Your task to perform on an android device: turn off priority inbox in the gmail app Image 0: 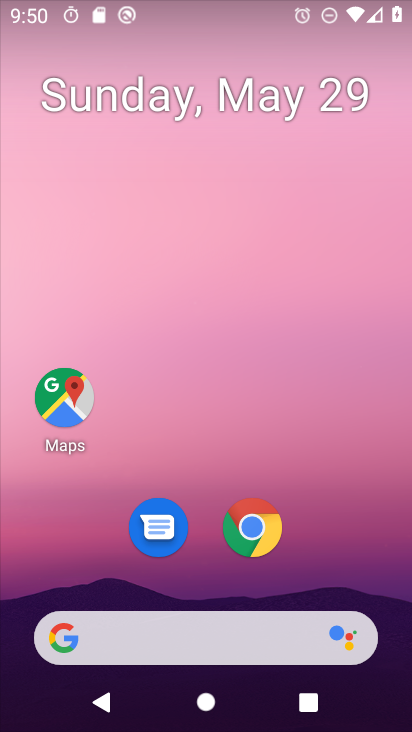
Step 0: drag from (391, 631) to (335, 50)
Your task to perform on an android device: turn off priority inbox in the gmail app Image 1: 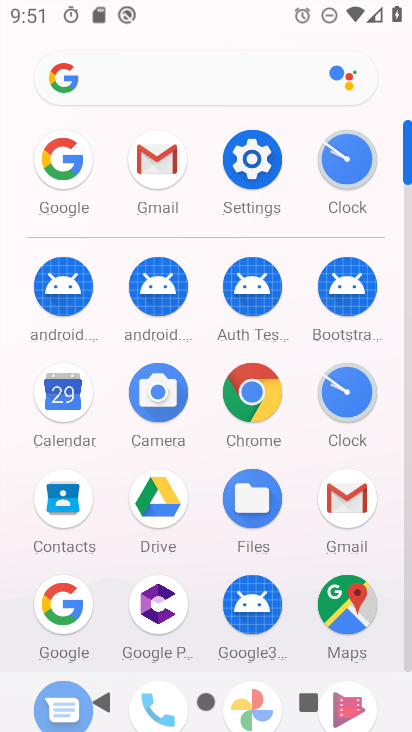
Step 1: click (352, 512)
Your task to perform on an android device: turn off priority inbox in the gmail app Image 2: 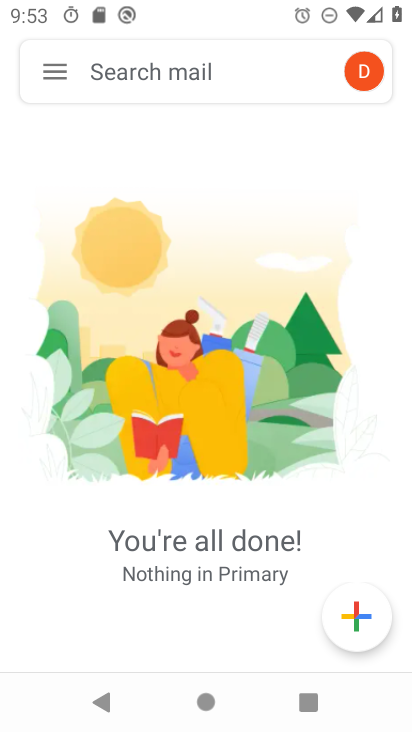
Step 2: click (46, 78)
Your task to perform on an android device: turn off priority inbox in the gmail app Image 3: 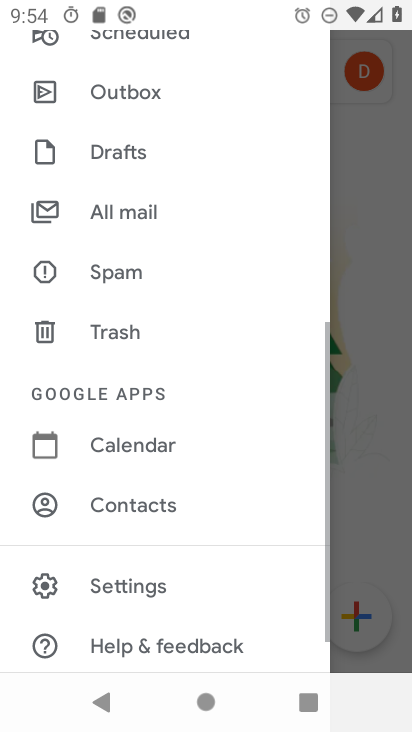
Step 3: click (156, 571)
Your task to perform on an android device: turn off priority inbox in the gmail app Image 4: 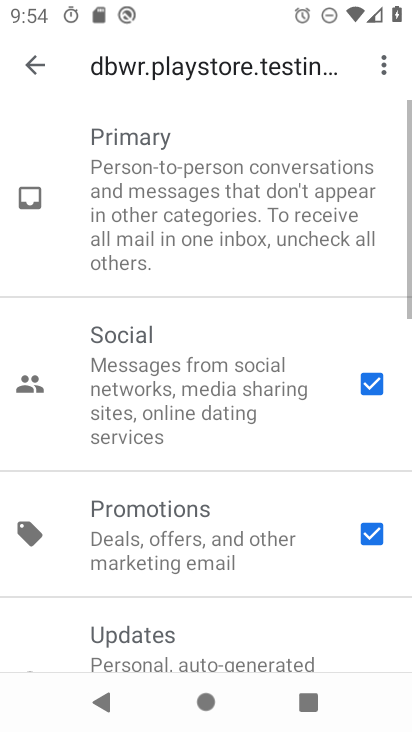
Step 4: drag from (231, 104) to (291, 658)
Your task to perform on an android device: turn off priority inbox in the gmail app Image 5: 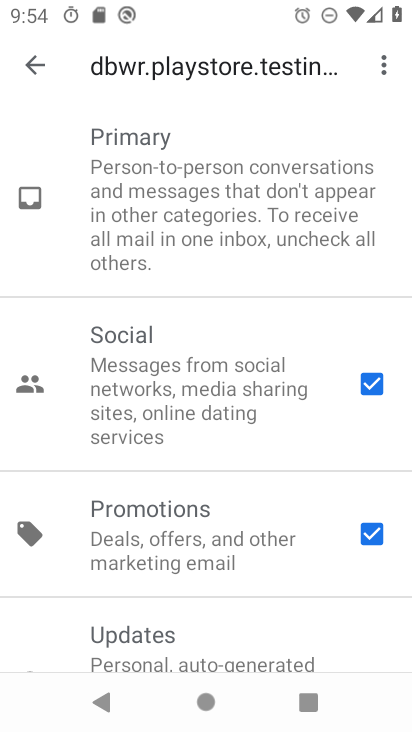
Step 5: press back button
Your task to perform on an android device: turn off priority inbox in the gmail app Image 6: 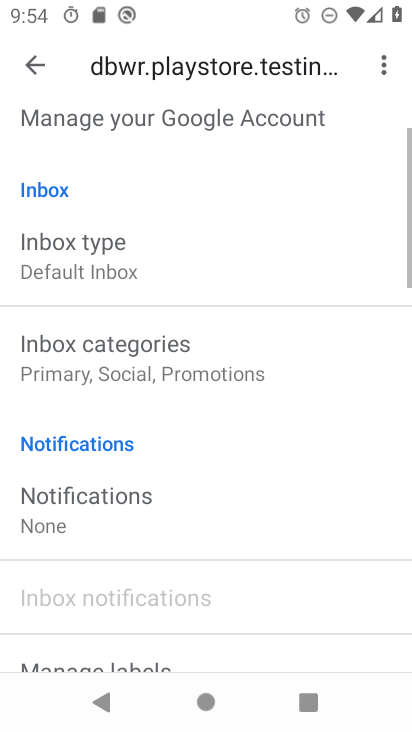
Step 6: click (109, 263)
Your task to perform on an android device: turn off priority inbox in the gmail app Image 7: 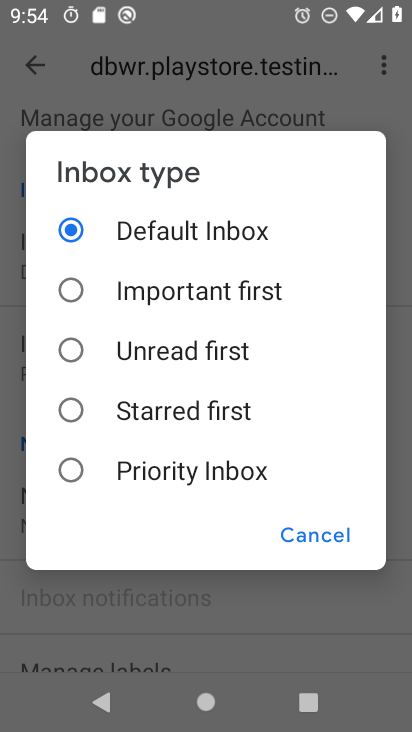
Step 7: task complete